Your task to perform on an android device: Open calendar and show me the first week of next month Image 0: 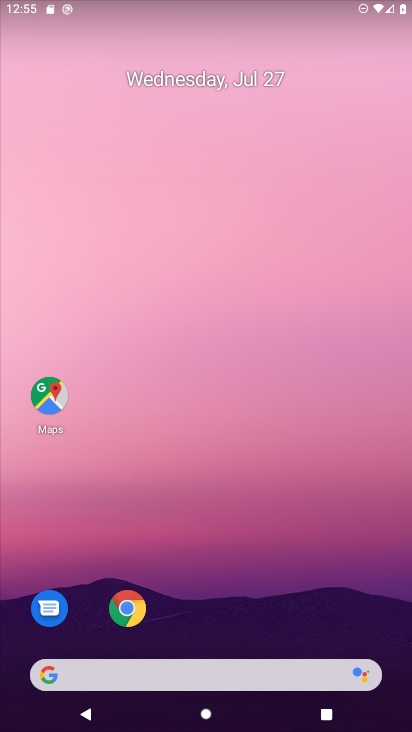
Step 0: drag from (193, 511) to (197, 7)
Your task to perform on an android device: Open calendar and show me the first week of next month Image 1: 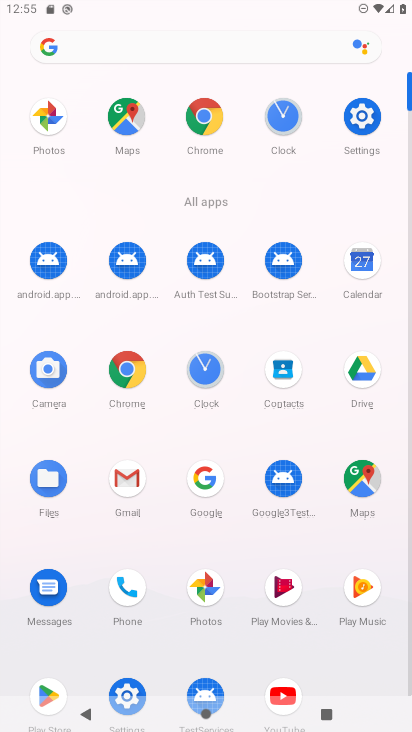
Step 1: click (374, 272)
Your task to perform on an android device: Open calendar and show me the first week of next month Image 2: 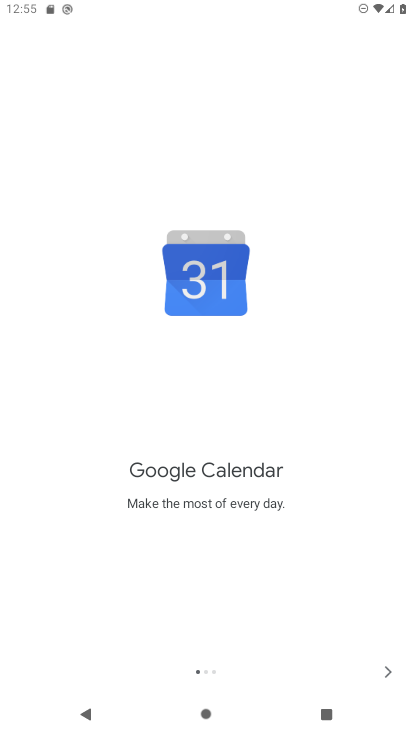
Step 2: click (388, 669)
Your task to perform on an android device: Open calendar and show me the first week of next month Image 3: 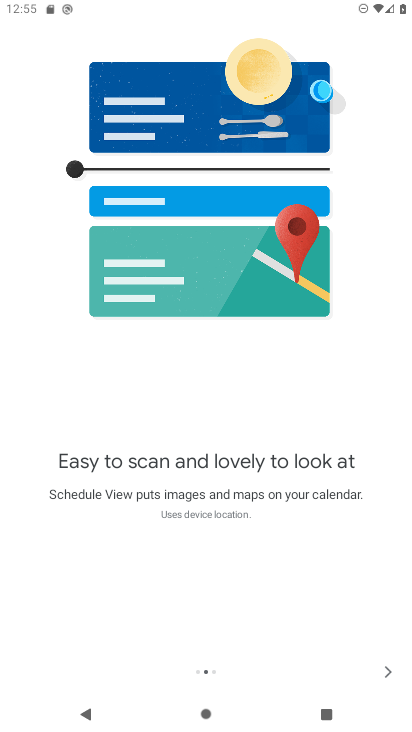
Step 3: click (383, 674)
Your task to perform on an android device: Open calendar and show me the first week of next month Image 4: 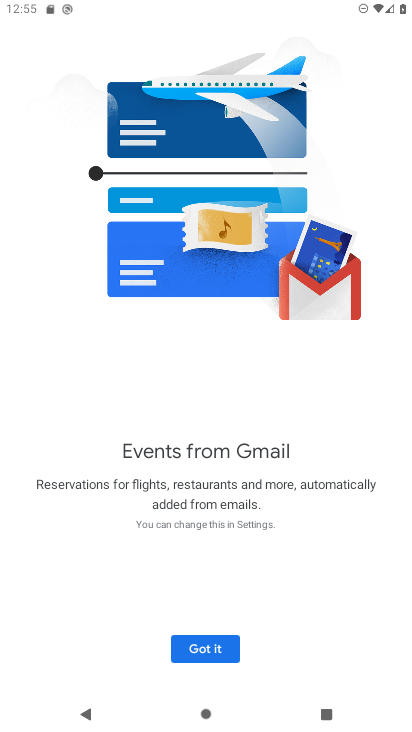
Step 4: click (214, 647)
Your task to perform on an android device: Open calendar and show me the first week of next month Image 5: 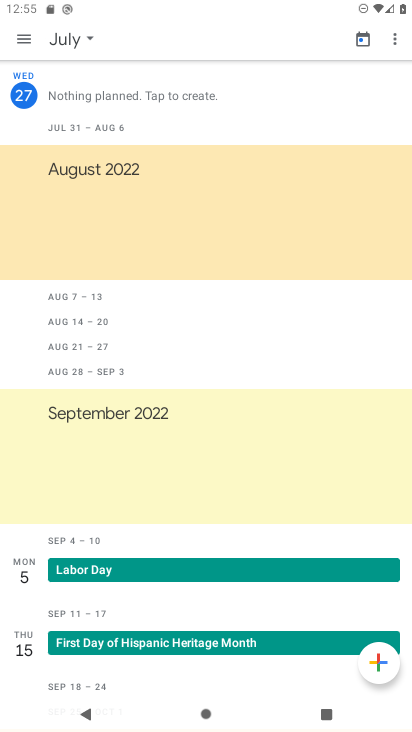
Step 5: click (19, 39)
Your task to perform on an android device: Open calendar and show me the first week of next month Image 6: 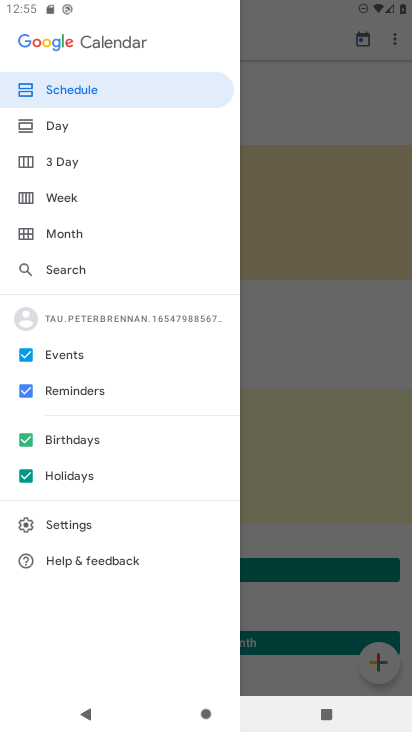
Step 6: click (70, 195)
Your task to perform on an android device: Open calendar and show me the first week of next month Image 7: 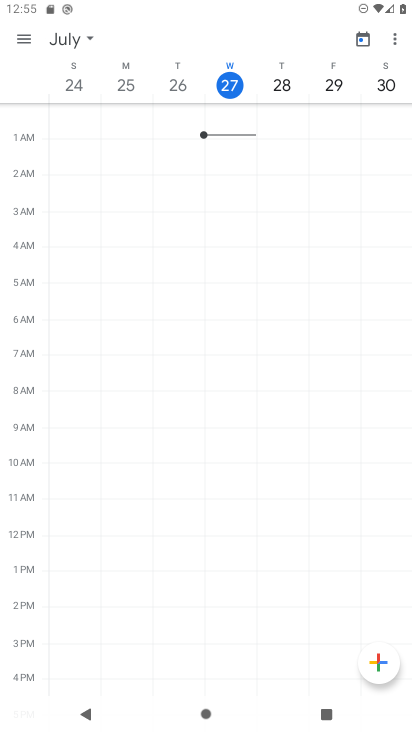
Step 7: task complete